Your task to perform on an android device: Go to settings Image 0: 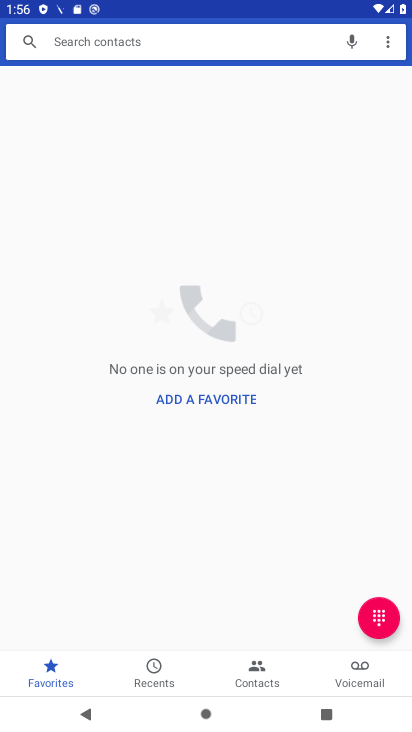
Step 0: press home button
Your task to perform on an android device: Go to settings Image 1: 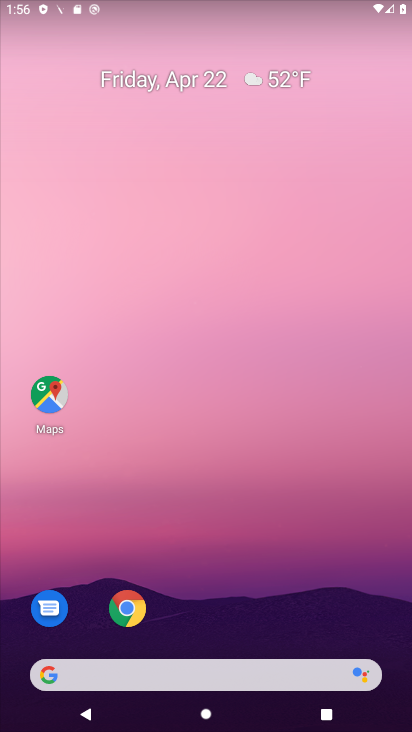
Step 1: drag from (295, 526) to (238, 184)
Your task to perform on an android device: Go to settings Image 2: 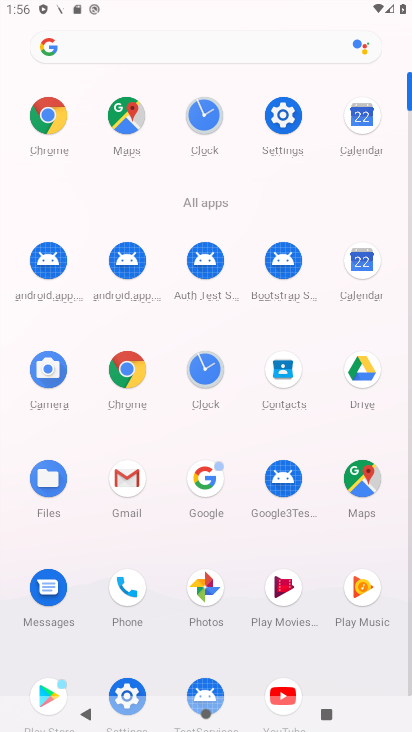
Step 2: click (284, 111)
Your task to perform on an android device: Go to settings Image 3: 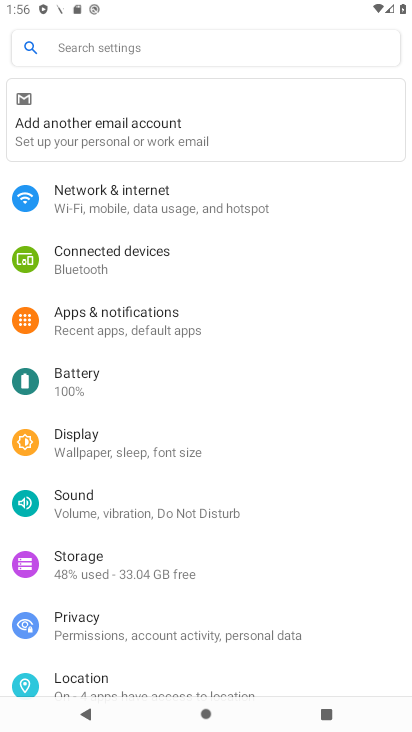
Step 3: task complete